Your task to perform on an android device: open sync settings in chrome Image 0: 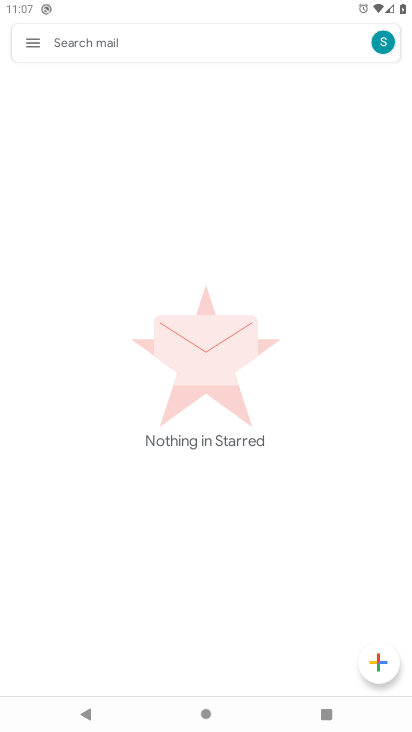
Step 0: press home button
Your task to perform on an android device: open sync settings in chrome Image 1: 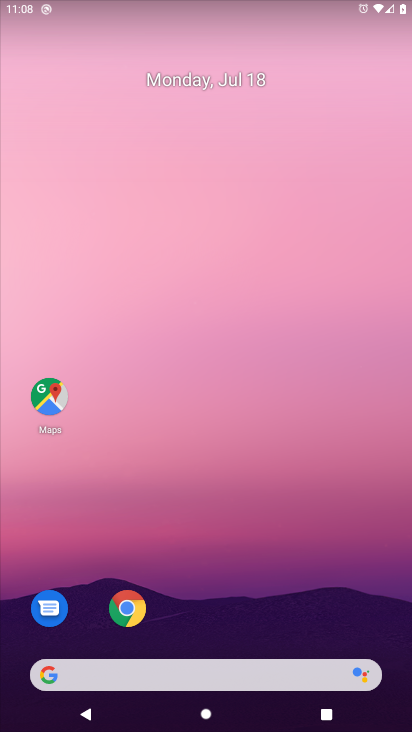
Step 1: drag from (32, 693) to (333, 3)
Your task to perform on an android device: open sync settings in chrome Image 2: 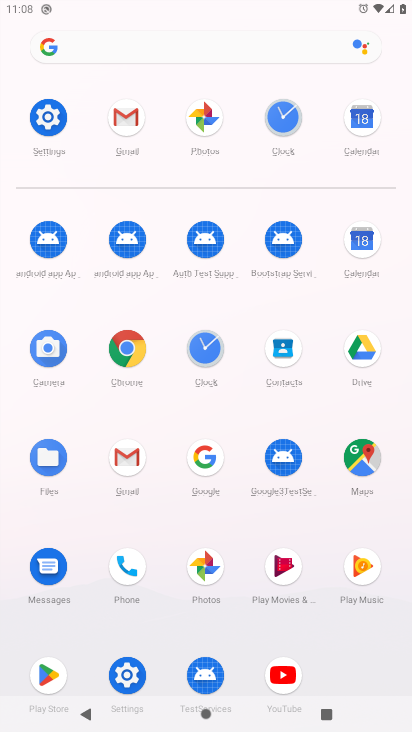
Step 2: click (130, 373)
Your task to perform on an android device: open sync settings in chrome Image 3: 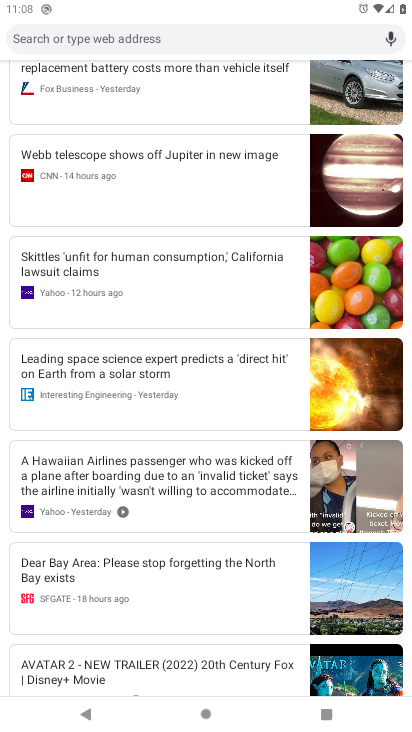
Step 3: click (69, 40)
Your task to perform on an android device: open sync settings in chrome Image 4: 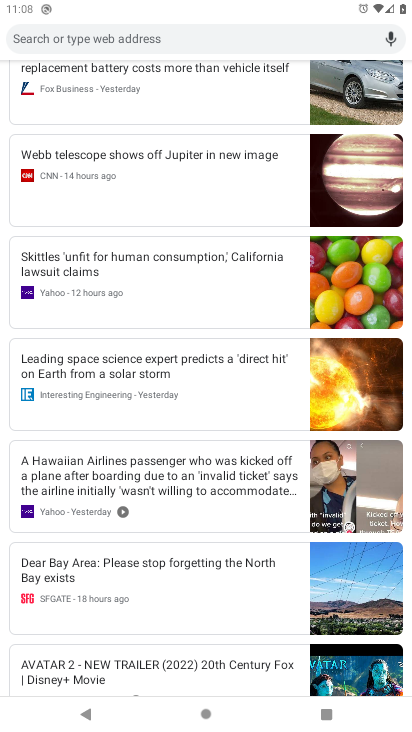
Step 4: click (175, 32)
Your task to perform on an android device: open sync settings in chrome Image 5: 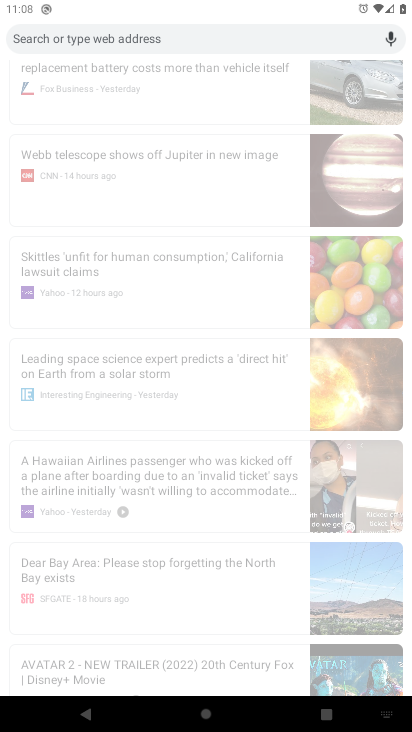
Step 5: click (375, 31)
Your task to perform on an android device: open sync settings in chrome Image 6: 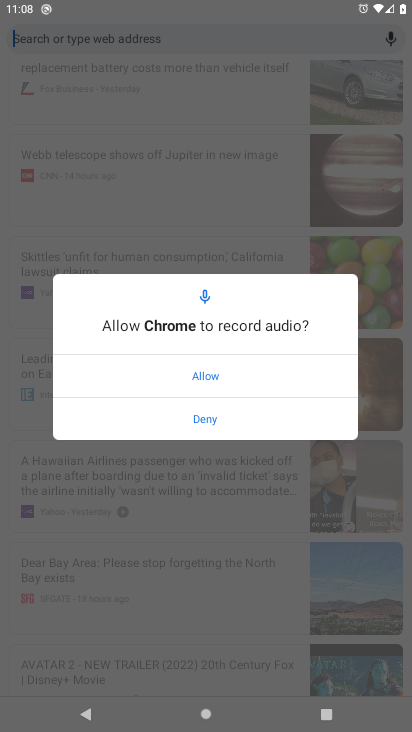
Step 6: task complete